Your task to perform on an android device: show emergency info Image 0: 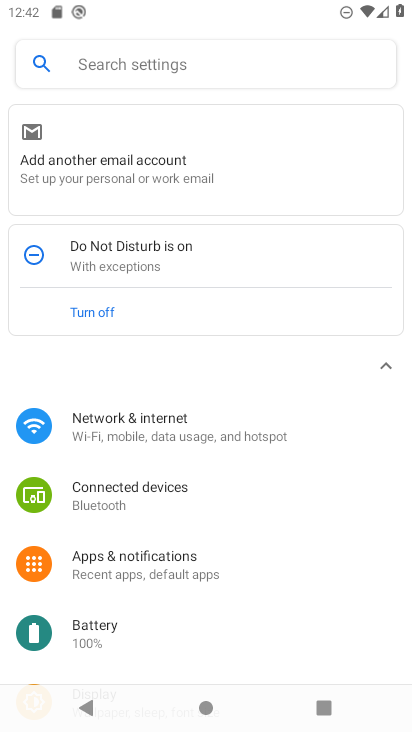
Step 0: drag from (151, 635) to (226, 217)
Your task to perform on an android device: show emergency info Image 1: 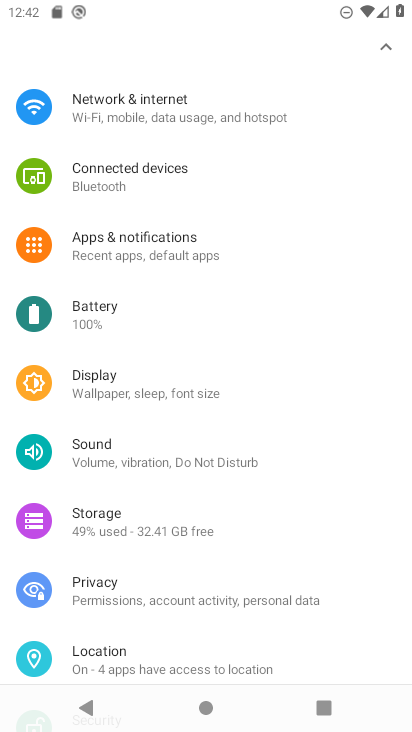
Step 1: drag from (125, 599) to (270, 131)
Your task to perform on an android device: show emergency info Image 2: 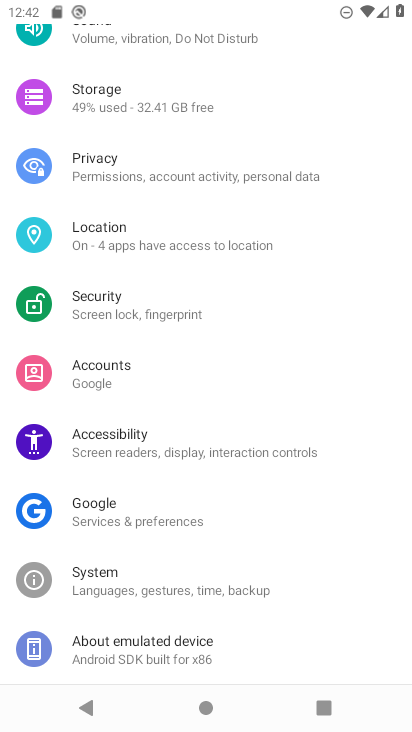
Step 2: drag from (100, 620) to (163, 212)
Your task to perform on an android device: show emergency info Image 3: 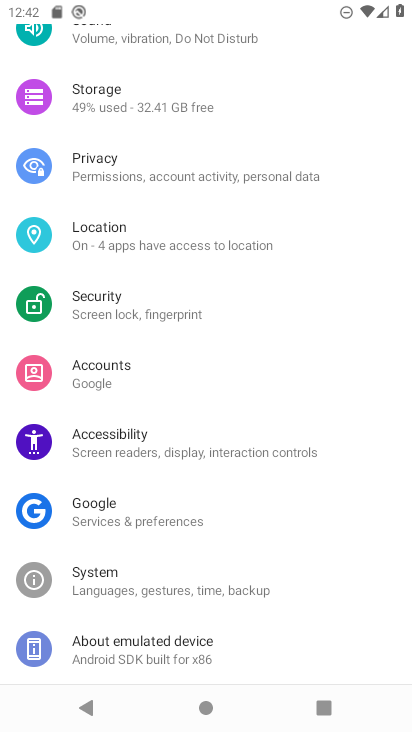
Step 3: click (152, 645)
Your task to perform on an android device: show emergency info Image 4: 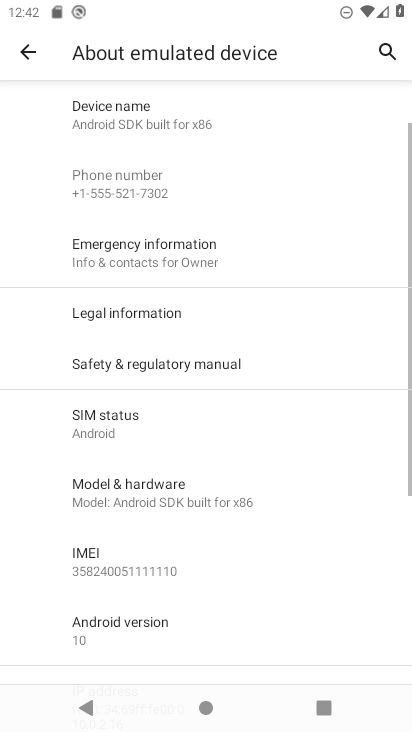
Step 4: drag from (146, 662) to (148, 188)
Your task to perform on an android device: show emergency info Image 5: 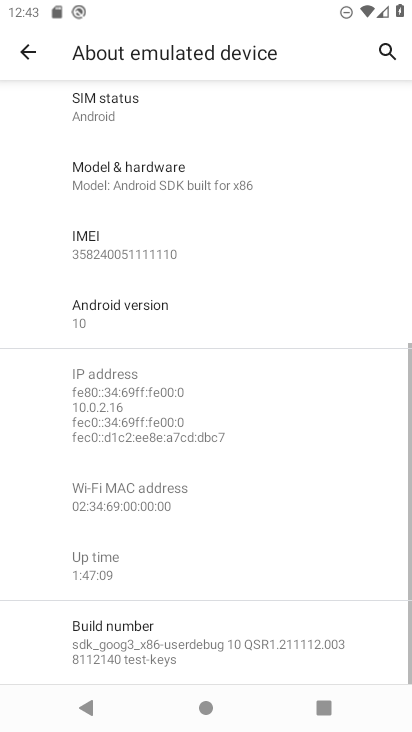
Step 5: drag from (145, 197) to (153, 634)
Your task to perform on an android device: show emergency info Image 6: 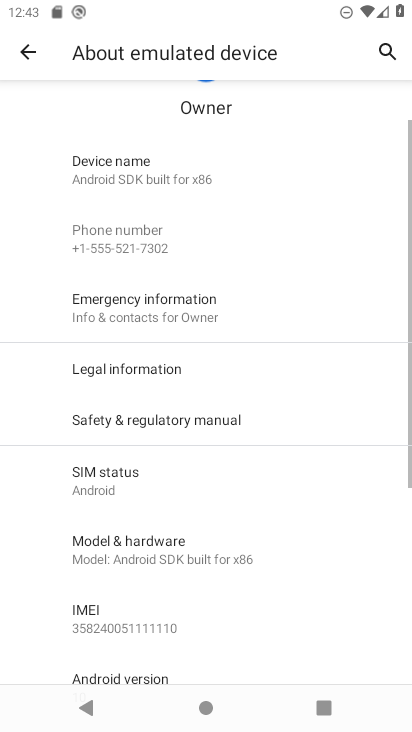
Step 6: click (188, 329)
Your task to perform on an android device: show emergency info Image 7: 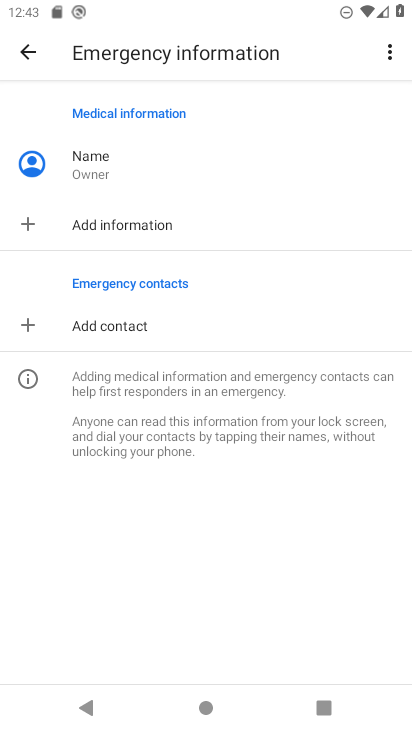
Step 7: task complete